Your task to perform on an android device: remove spam from my inbox in the gmail app Image 0: 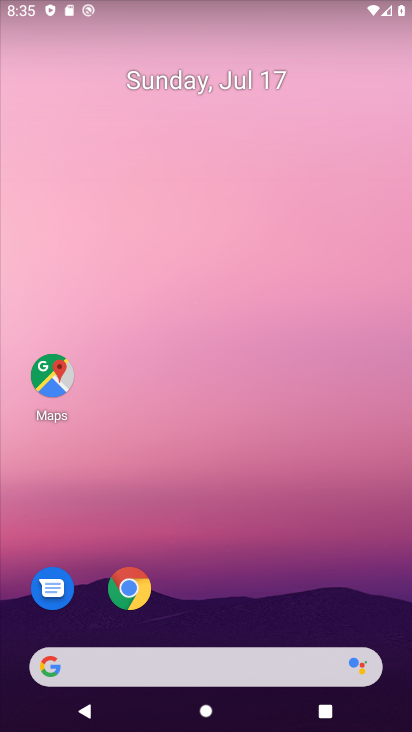
Step 0: drag from (210, 618) to (197, 43)
Your task to perform on an android device: remove spam from my inbox in the gmail app Image 1: 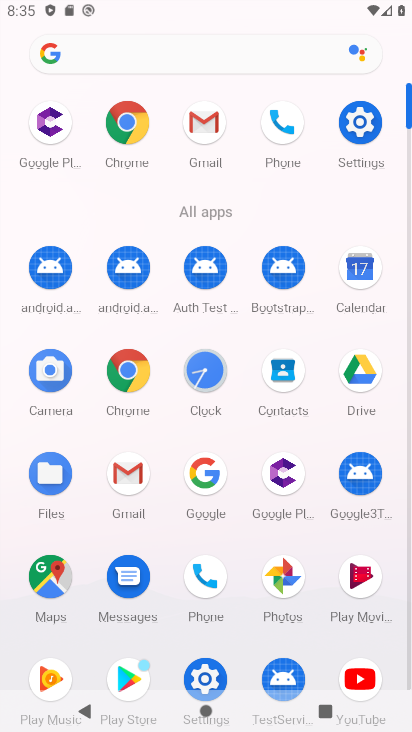
Step 1: click (143, 486)
Your task to perform on an android device: remove spam from my inbox in the gmail app Image 2: 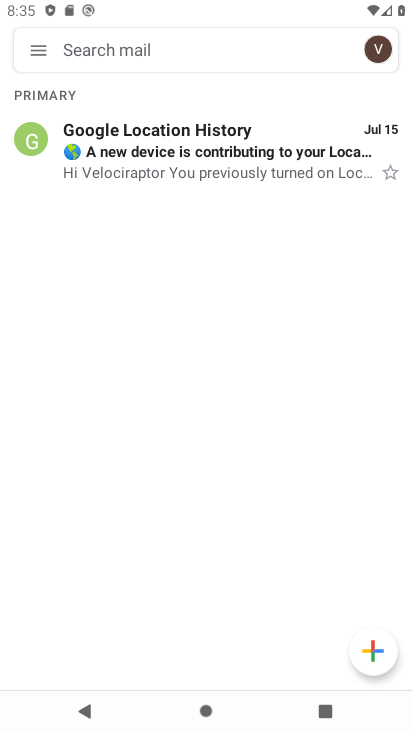
Step 2: click (30, 49)
Your task to perform on an android device: remove spam from my inbox in the gmail app Image 3: 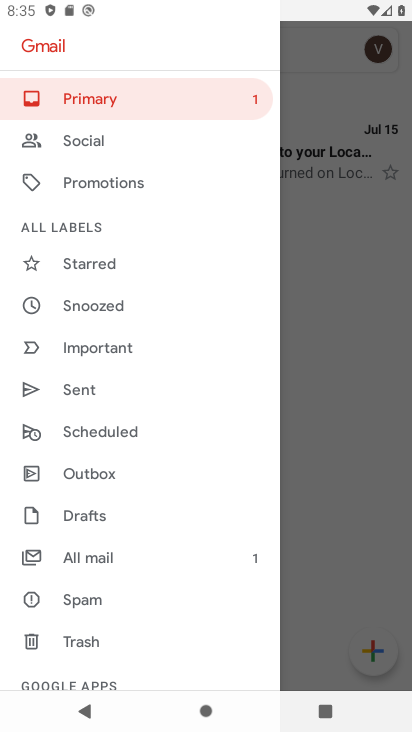
Step 3: click (74, 597)
Your task to perform on an android device: remove spam from my inbox in the gmail app Image 4: 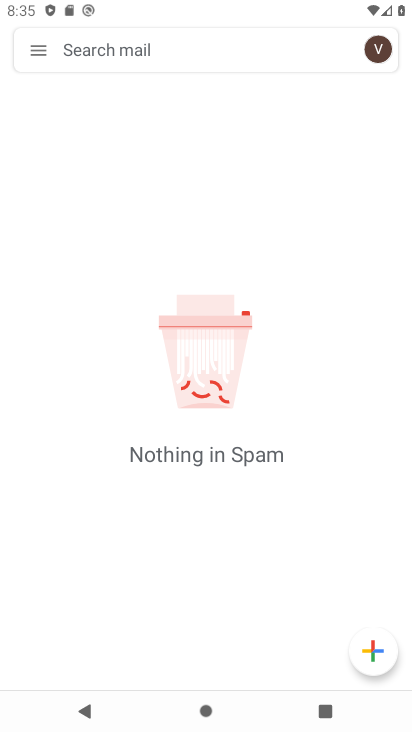
Step 4: task complete